Your task to perform on an android device: Open settings Image 0: 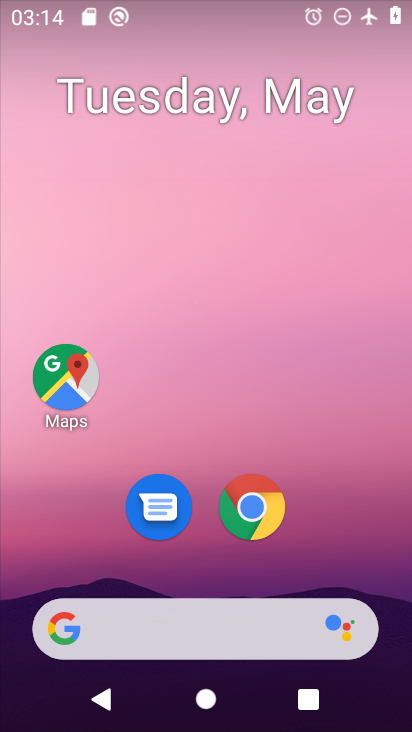
Step 0: drag from (220, 579) to (205, 233)
Your task to perform on an android device: Open settings Image 1: 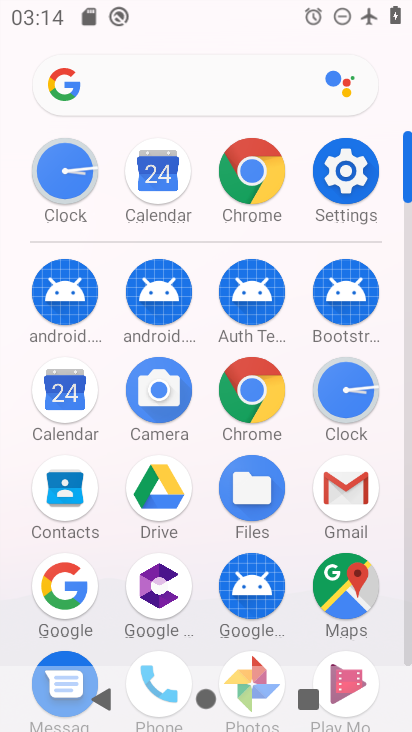
Step 1: click (334, 182)
Your task to perform on an android device: Open settings Image 2: 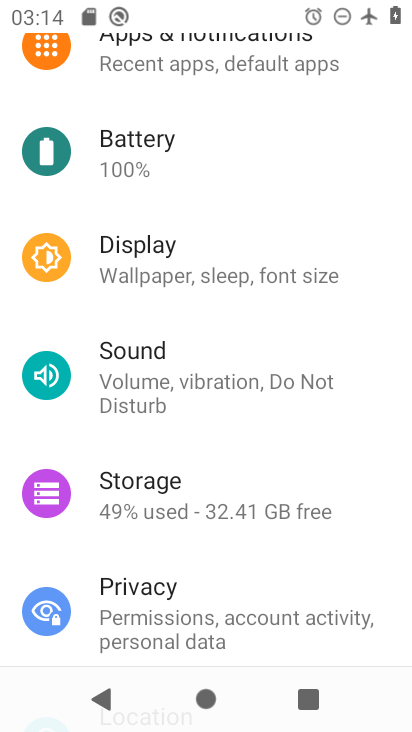
Step 2: task complete